Your task to perform on an android device: set an alarm Image 0: 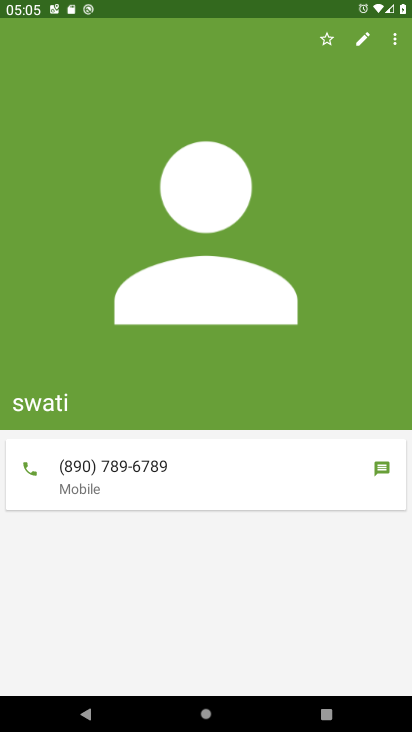
Step 0: press home button
Your task to perform on an android device: set an alarm Image 1: 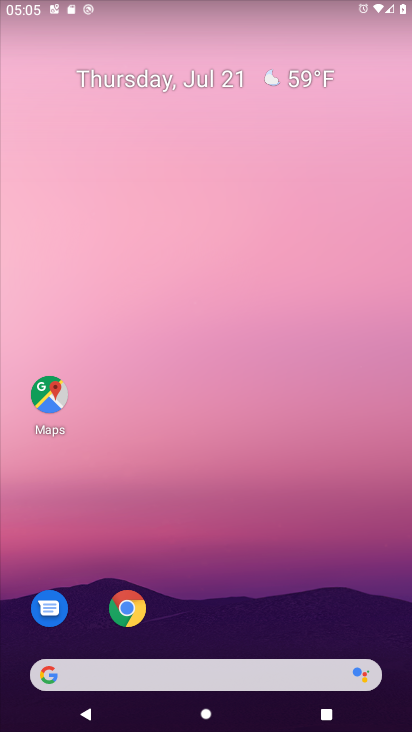
Step 1: drag from (242, 673) to (359, 68)
Your task to perform on an android device: set an alarm Image 2: 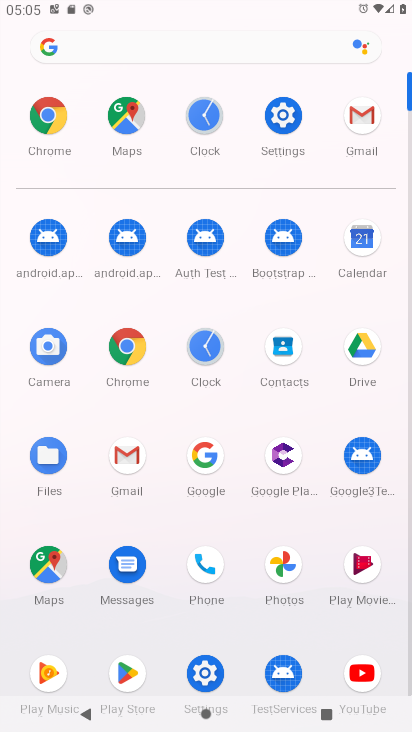
Step 2: click (199, 344)
Your task to perform on an android device: set an alarm Image 3: 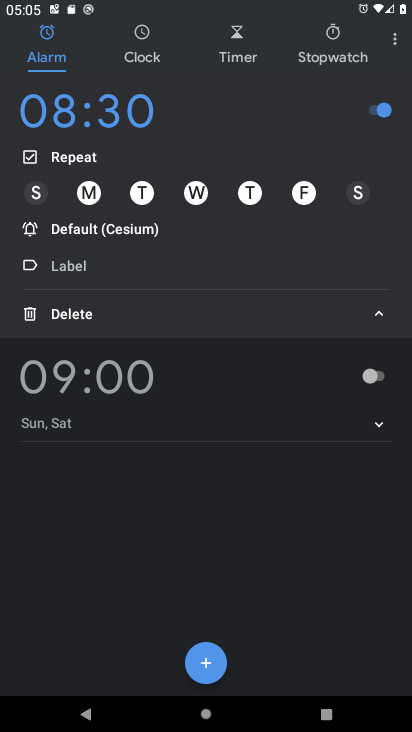
Step 3: click (380, 377)
Your task to perform on an android device: set an alarm Image 4: 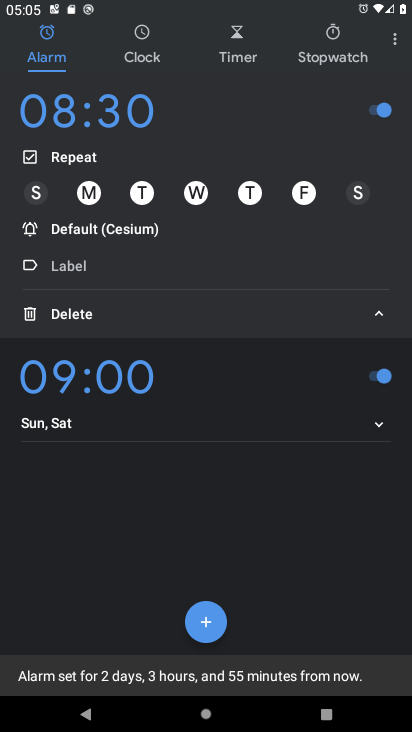
Step 4: task complete